Your task to perform on an android device: open the mobile data screen to see how much data has been used Image 0: 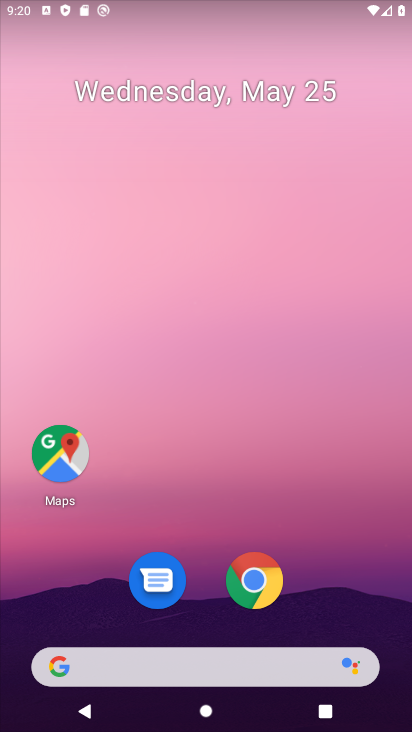
Step 0: drag from (137, 451) to (392, 155)
Your task to perform on an android device: open the mobile data screen to see how much data has been used Image 1: 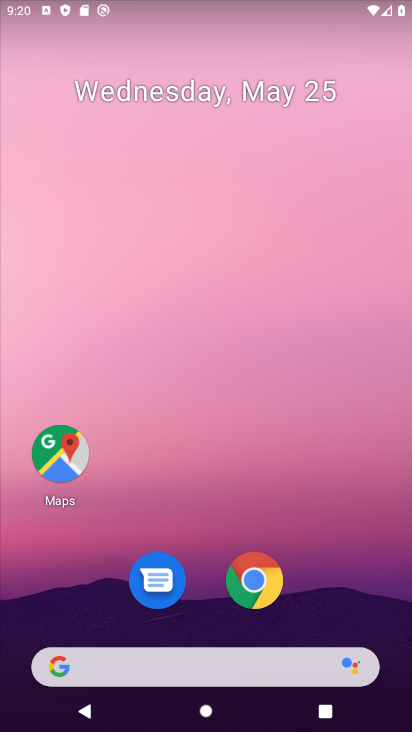
Step 1: drag from (19, 530) to (379, 105)
Your task to perform on an android device: open the mobile data screen to see how much data has been used Image 2: 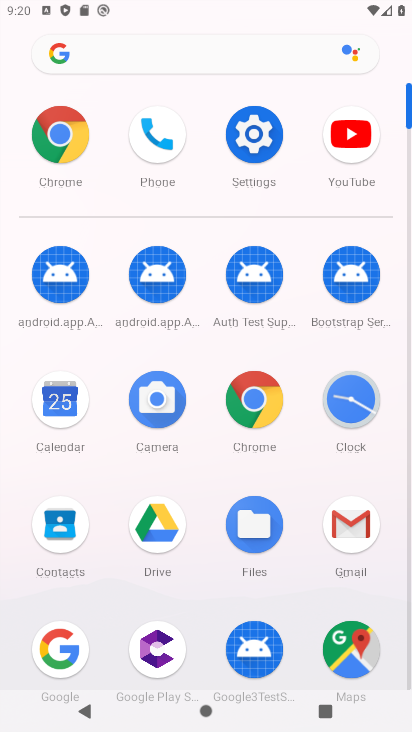
Step 2: click (226, 133)
Your task to perform on an android device: open the mobile data screen to see how much data has been used Image 3: 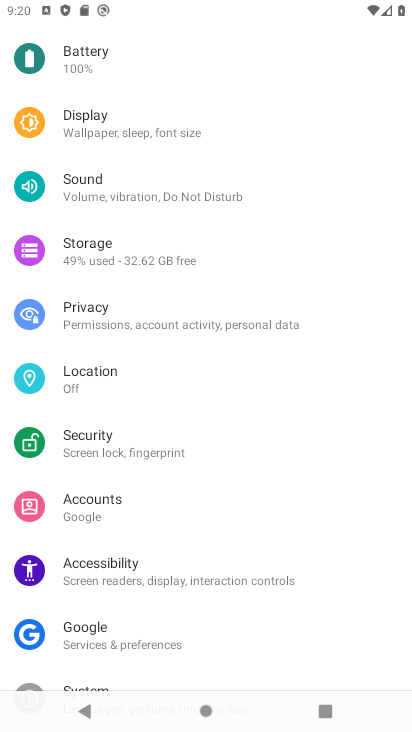
Step 3: drag from (201, 86) to (179, 462)
Your task to perform on an android device: open the mobile data screen to see how much data has been used Image 4: 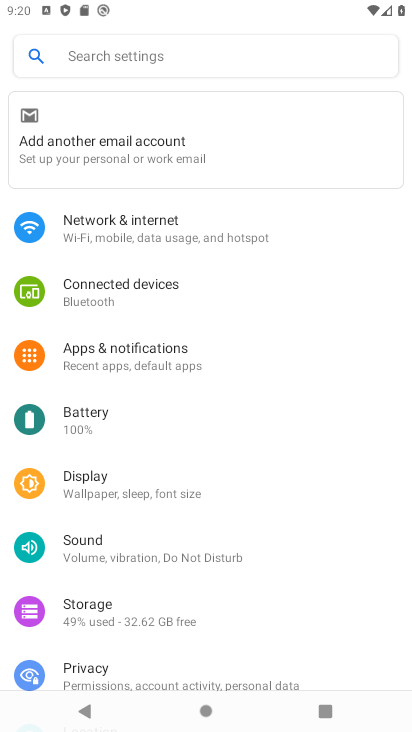
Step 4: click (189, 239)
Your task to perform on an android device: open the mobile data screen to see how much data has been used Image 5: 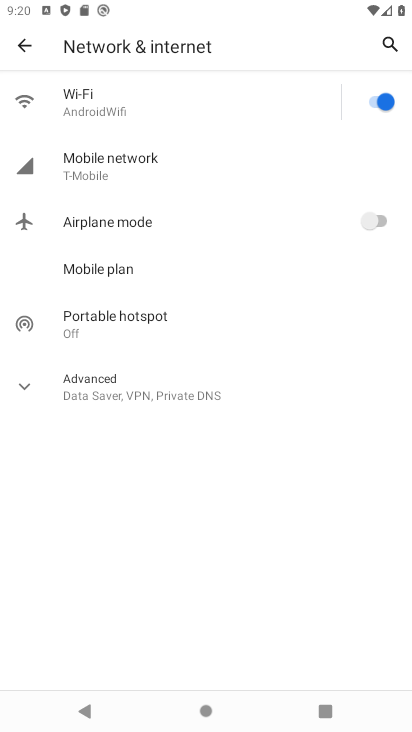
Step 5: click (135, 167)
Your task to perform on an android device: open the mobile data screen to see how much data has been used Image 6: 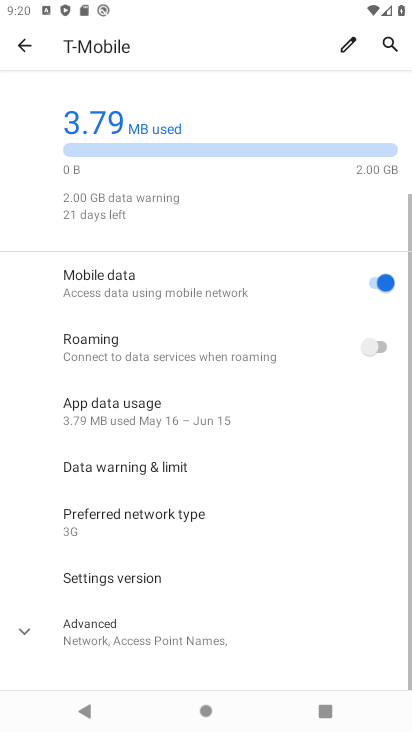
Step 6: click (158, 152)
Your task to perform on an android device: open the mobile data screen to see how much data has been used Image 7: 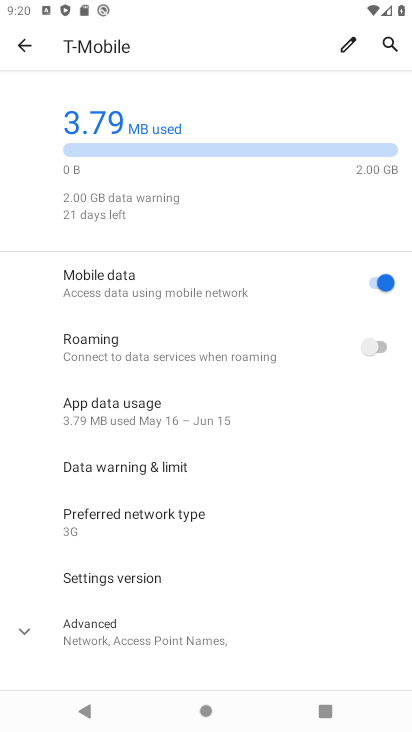
Step 7: task complete